Your task to perform on an android device: change your default location settings in chrome Image 0: 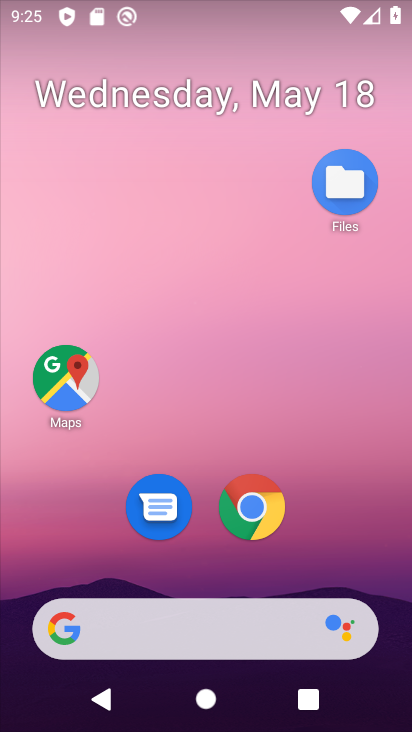
Step 0: click (223, 499)
Your task to perform on an android device: change your default location settings in chrome Image 1: 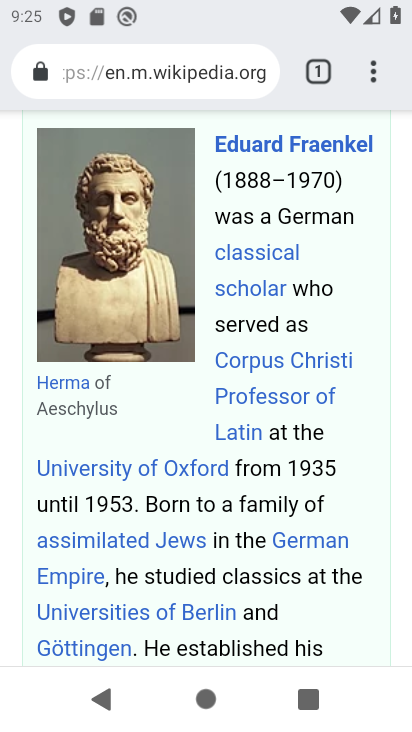
Step 1: drag from (371, 66) to (200, 507)
Your task to perform on an android device: change your default location settings in chrome Image 2: 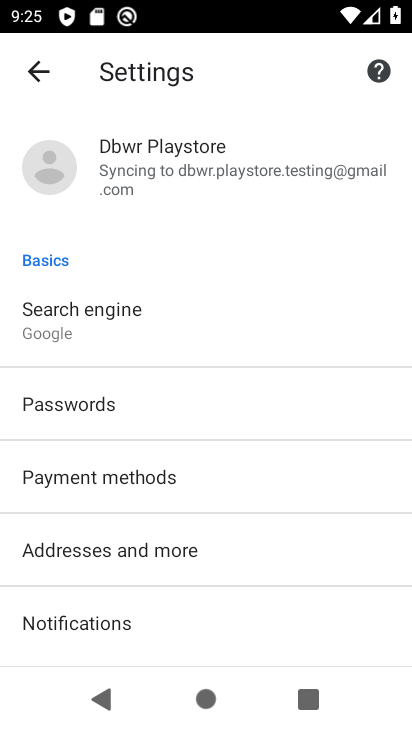
Step 2: click (115, 316)
Your task to perform on an android device: change your default location settings in chrome Image 3: 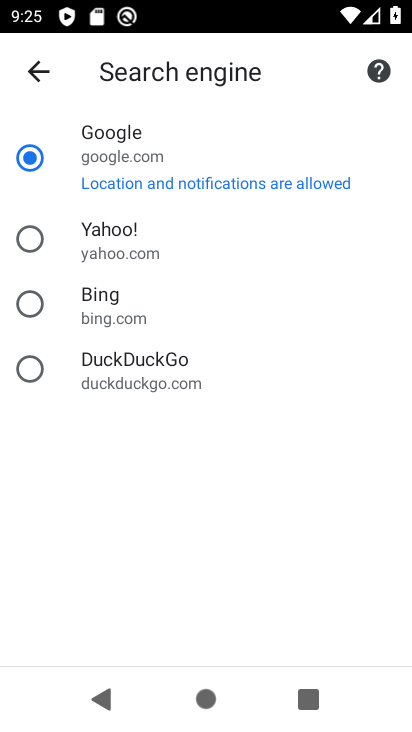
Step 3: click (25, 68)
Your task to perform on an android device: change your default location settings in chrome Image 4: 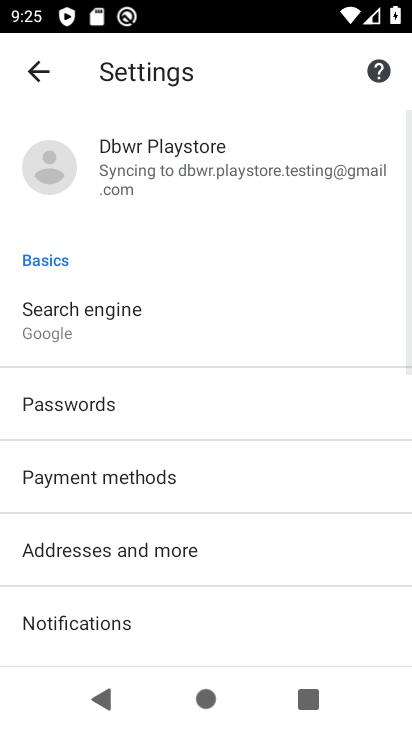
Step 4: drag from (203, 601) to (311, 104)
Your task to perform on an android device: change your default location settings in chrome Image 5: 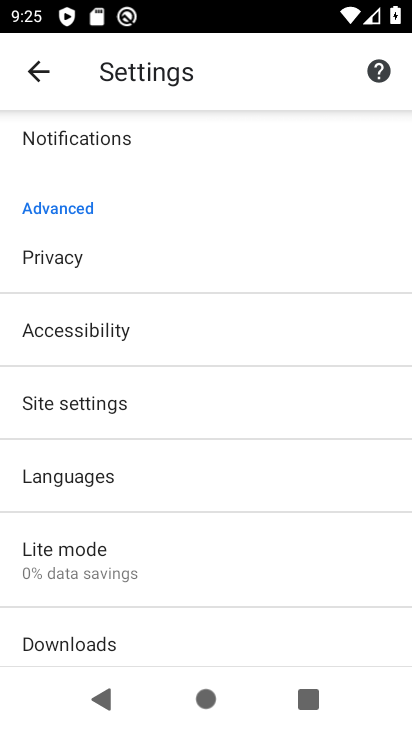
Step 5: drag from (220, 516) to (218, 303)
Your task to perform on an android device: change your default location settings in chrome Image 6: 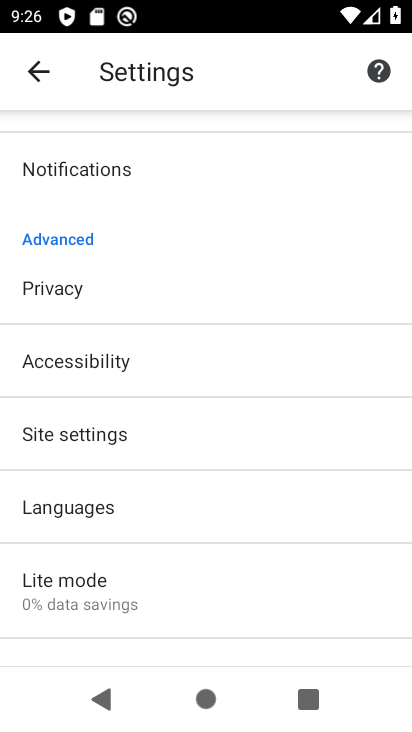
Step 6: click (103, 436)
Your task to perform on an android device: change your default location settings in chrome Image 7: 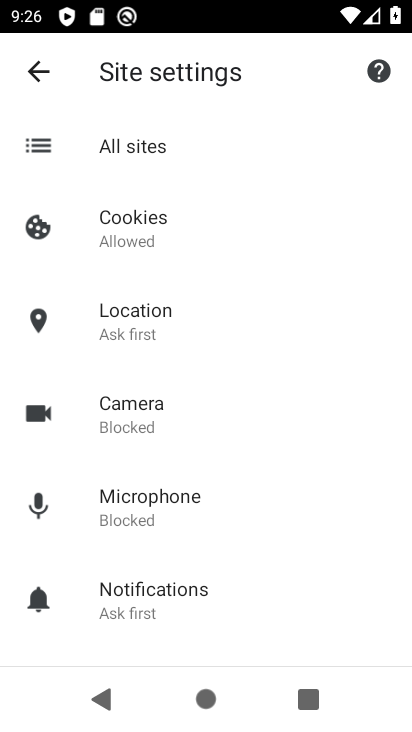
Step 7: click (160, 326)
Your task to perform on an android device: change your default location settings in chrome Image 8: 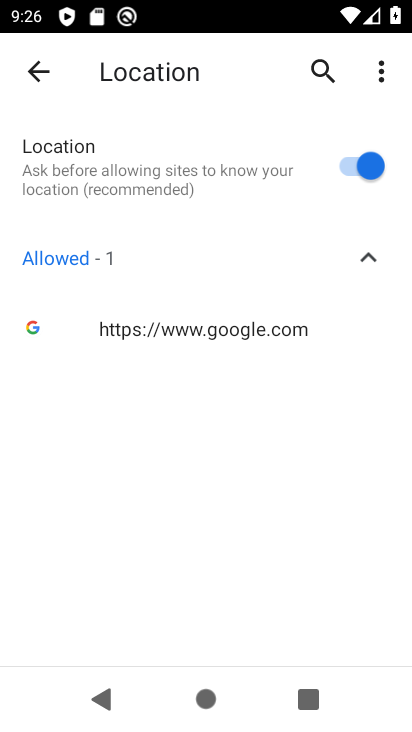
Step 8: click (347, 172)
Your task to perform on an android device: change your default location settings in chrome Image 9: 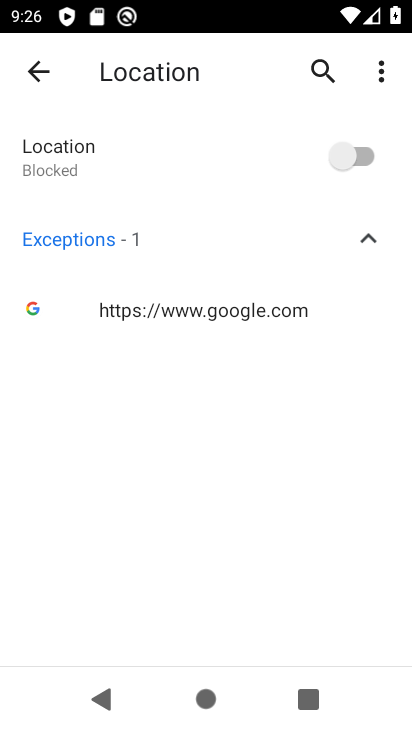
Step 9: task complete